Your task to perform on an android device: change the clock display to show seconds Image 0: 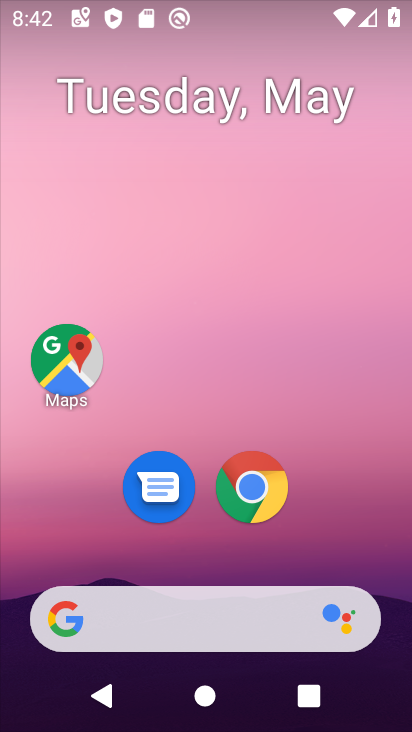
Step 0: drag from (365, 532) to (362, 158)
Your task to perform on an android device: change the clock display to show seconds Image 1: 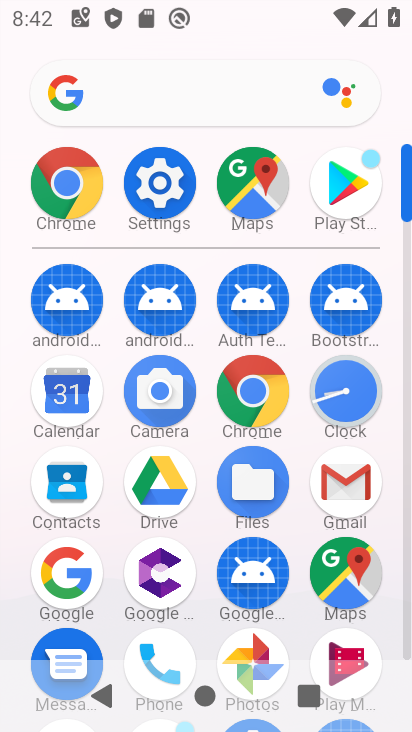
Step 1: click (361, 385)
Your task to perform on an android device: change the clock display to show seconds Image 2: 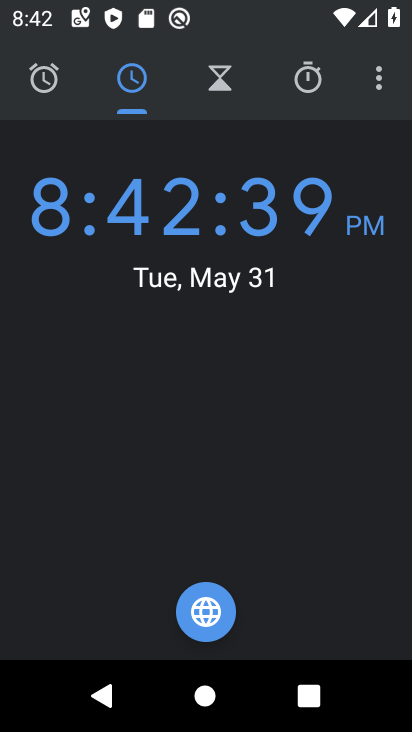
Step 2: click (378, 93)
Your task to perform on an android device: change the clock display to show seconds Image 3: 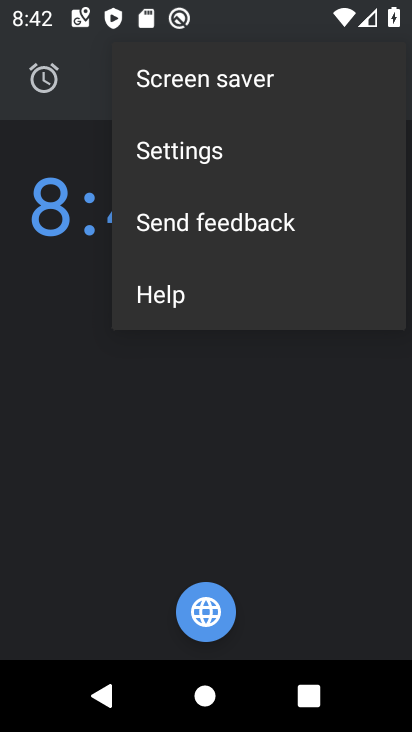
Step 3: click (251, 157)
Your task to perform on an android device: change the clock display to show seconds Image 4: 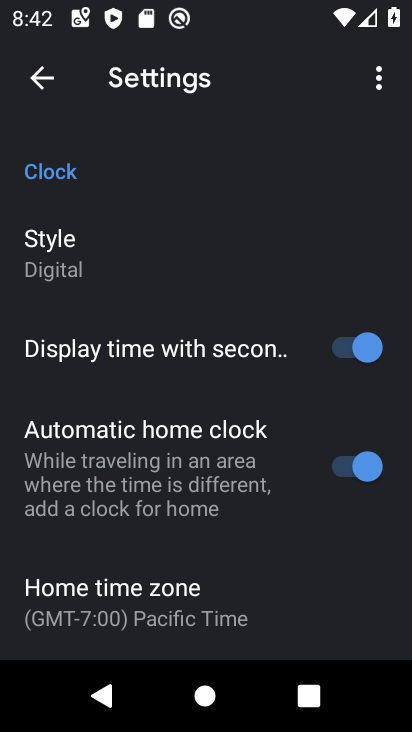
Step 4: task complete